Your task to perform on an android device: create a new album in the google photos Image 0: 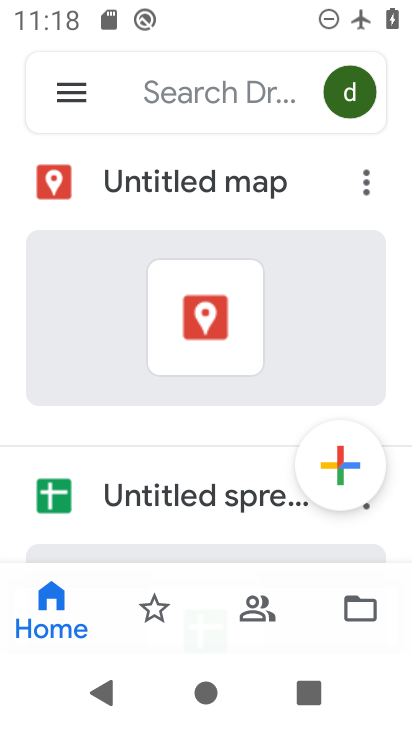
Step 0: press home button
Your task to perform on an android device: create a new album in the google photos Image 1: 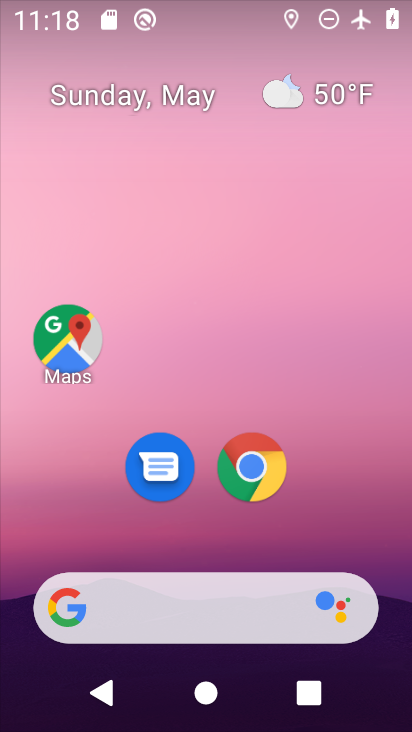
Step 1: drag from (212, 550) to (230, 98)
Your task to perform on an android device: create a new album in the google photos Image 2: 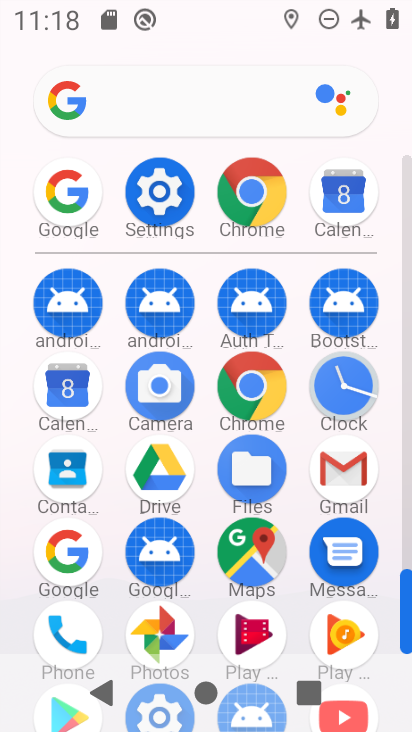
Step 2: click (152, 621)
Your task to perform on an android device: create a new album in the google photos Image 3: 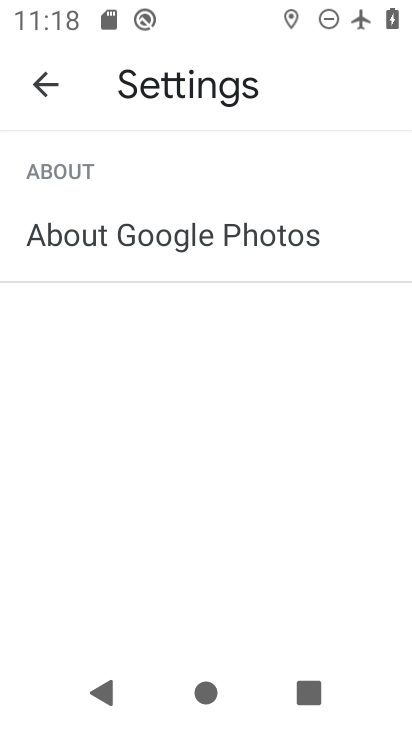
Step 3: click (42, 79)
Your task to perform on an android device: create a new album in the google photos Image 4: 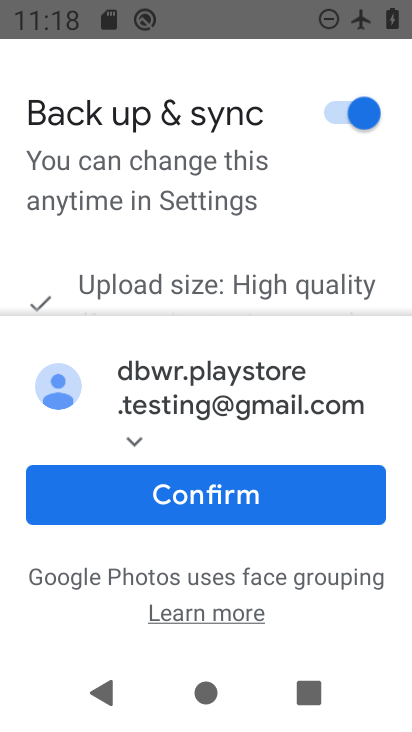
Step 4: click (232, 483)
Your task to perform on an android device: create a new album in the google photos Image 5: 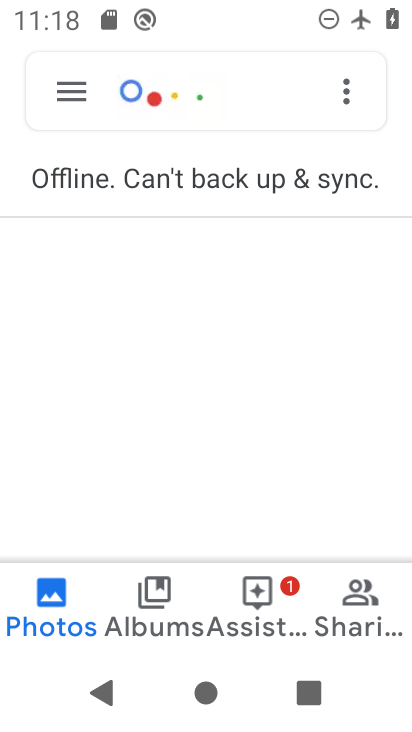
Step 5: click (343, 90)
Your task to perform on an android device: create a new album in the google photos Image 6: 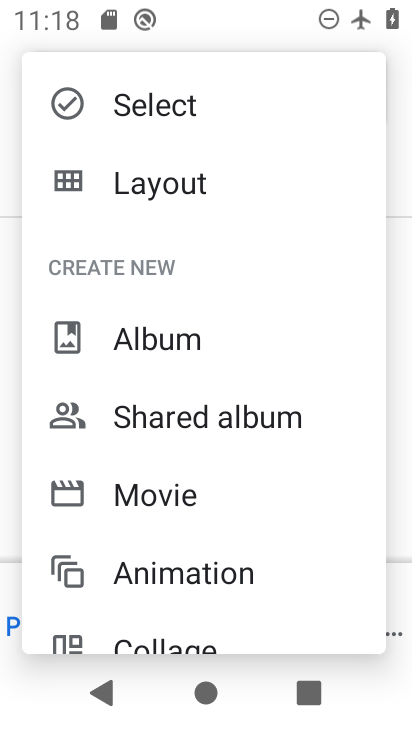
Step 6: click (188, 338)
Your task to perform on an android device: create a new album in the google photos Image 7: 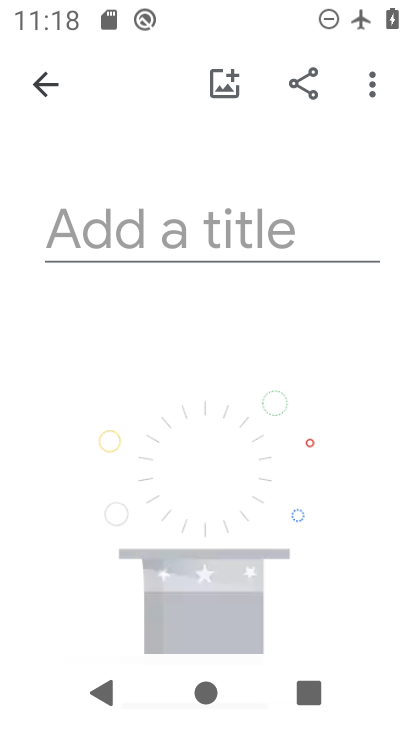
Step 7: click (182, 231)
Your task to perform on an android device: create a new album in the google photos Image 8: 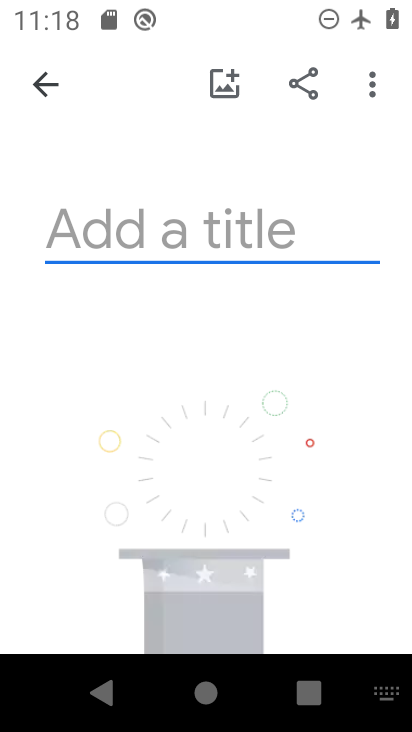
Step 8: type "aagrdh"
Your task to perform on an android device: create a new album in the google photos Image 9: 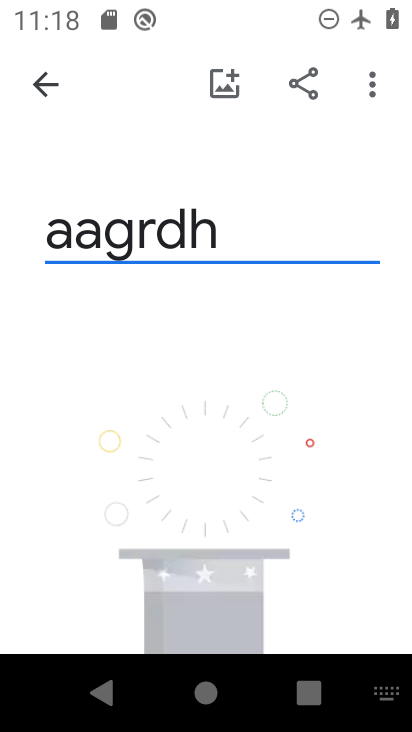
Step 9: drag from (248, 470) to (237, 163)
Your task to perform on an android device: create a new album in the google photos Image 10: 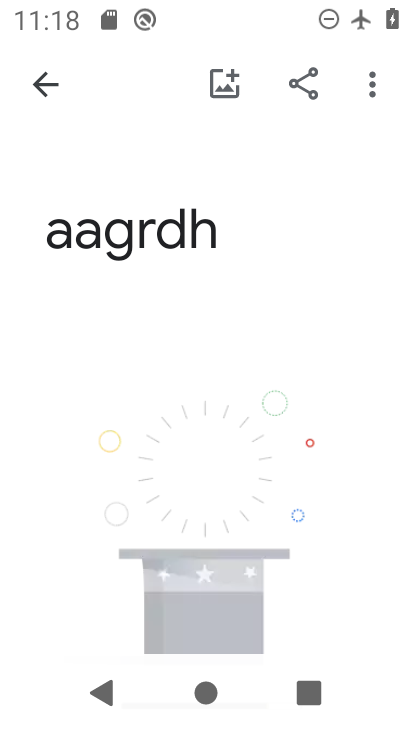
Step 10: click (53, 74)
Your task to perform on an android device: create a new album in the google photos Image 11: 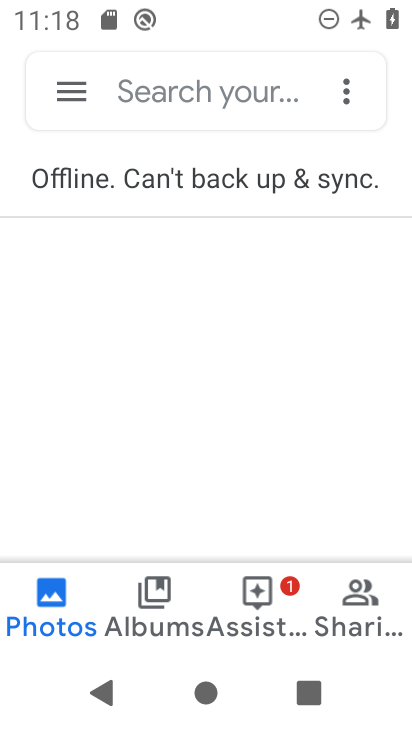
Step 11: click (350, 91)
Your task to perform on an android device: create a new album in the google photos Image 12: 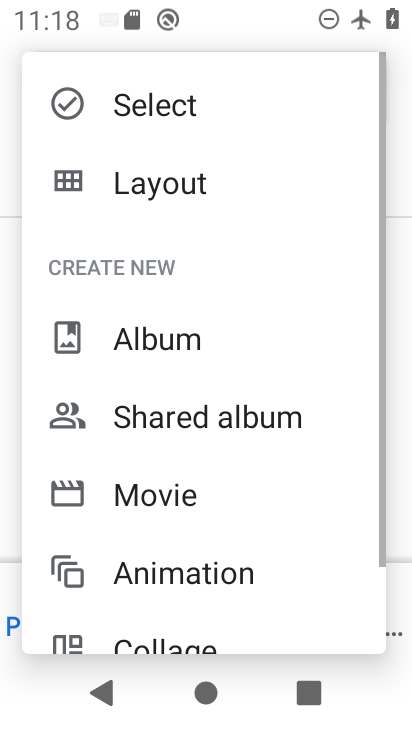
Step 12: click (158, 347)
Your task to perform on an android device: create a new album in the google photos Image 13: 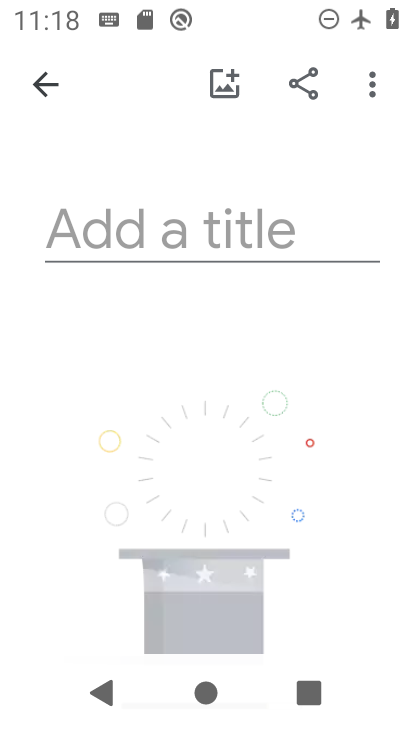
Step 13: click (168, 239)
Your task to perform on an android device: create a new album in the google photos Image 14: 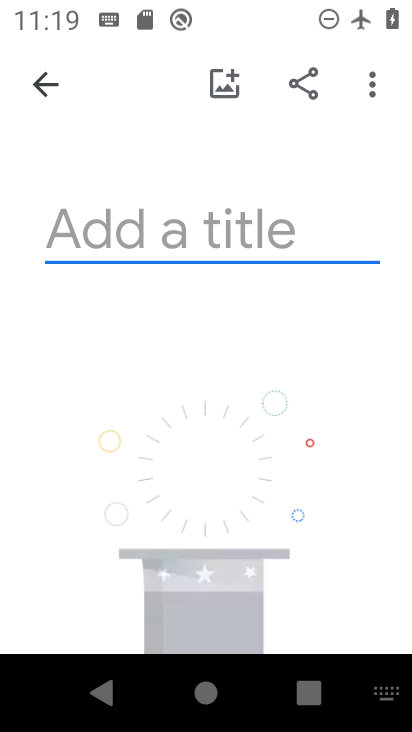
Step 14: type "sfhsfh"
Your task to perform on an android device: create a new album in the google photos Image 15: 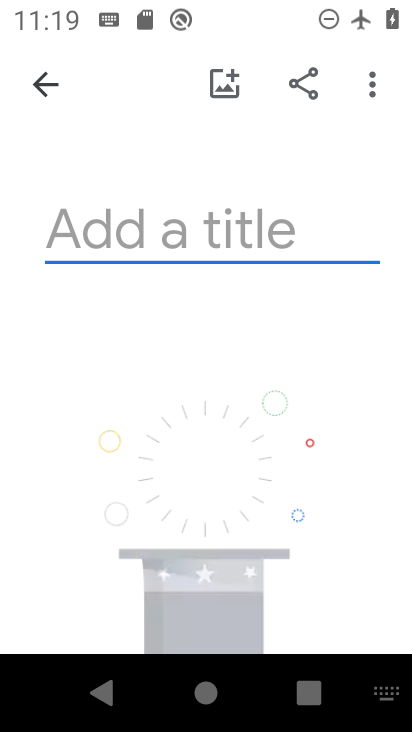
Step 15: click (230, 77)
Your task to perform on an android device: create a new album in the google photos Image 16: 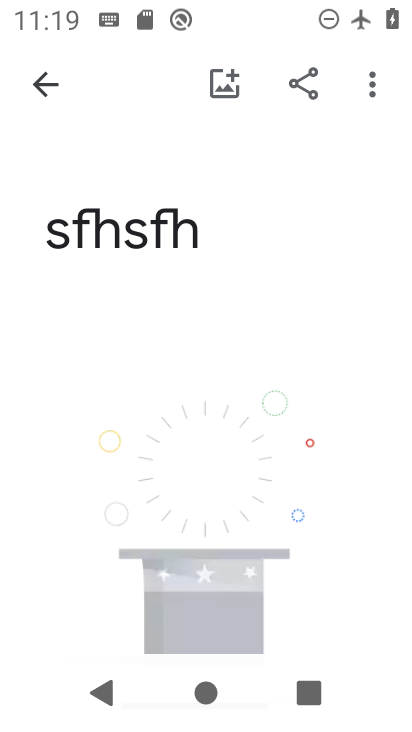
Step 16: click (227, 80)
Your task to perform on an android device: create a new album in the google photos Image 17: 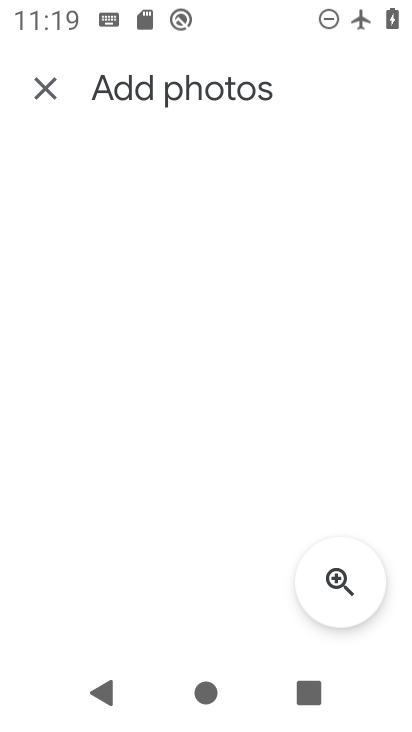
Step 17: task complete